Your task to perform on an android device: see tabs open on other devices in the chrome app Image 0: 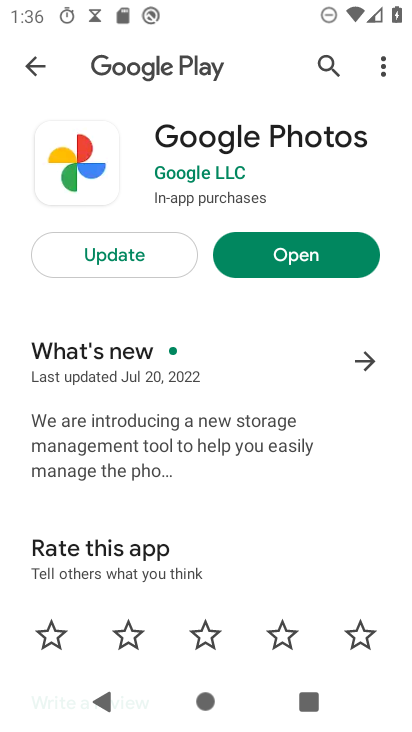
Step 0: press home button
Your task to perform on an android device: see tabs open on other devices in the chrome app Image 1: 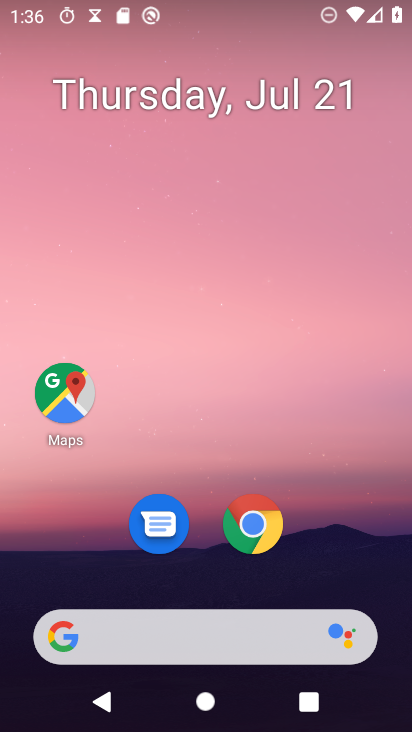
Step 1: click (255, 528)
Your task to perform on an android device: see tabs open on other devices in the chrome app Image 2: 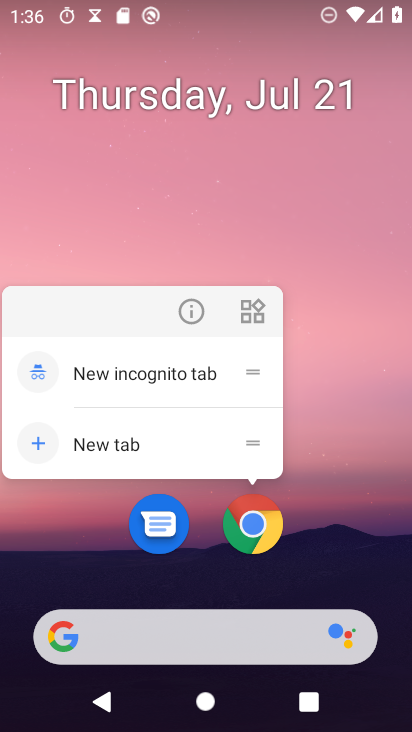
Step 2: click (255, 528)
Your task to perform on an android device: see tabs open on other devices in the chrome app Image 3: 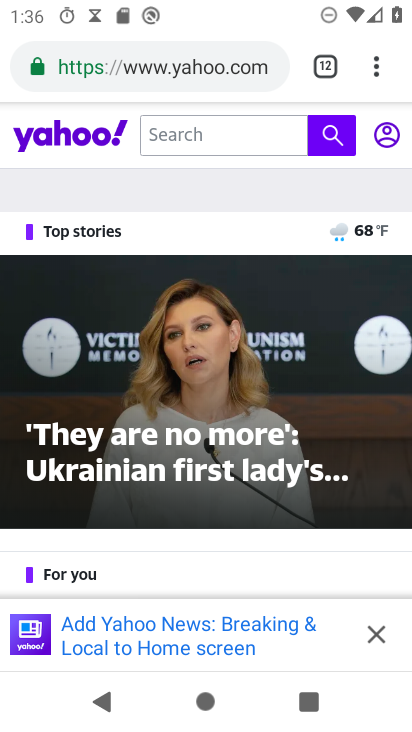
Step 3: task complete